Your task to perform on an android device: See recent photos Image 0: 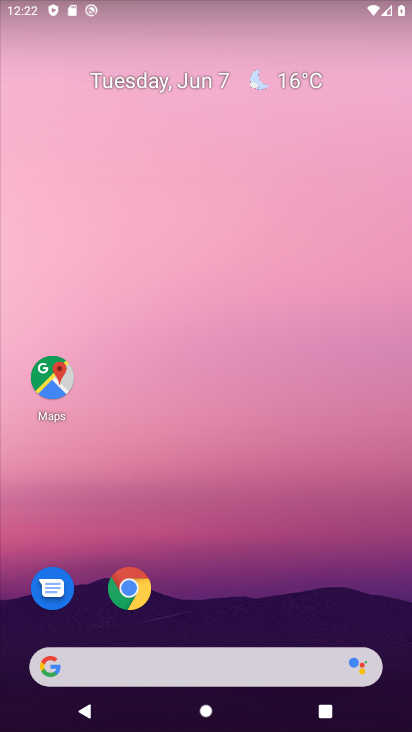
Step 0: drag from (301, 587) to (209, 132)
Your task to perform on an android device: See recent photos Image 1: 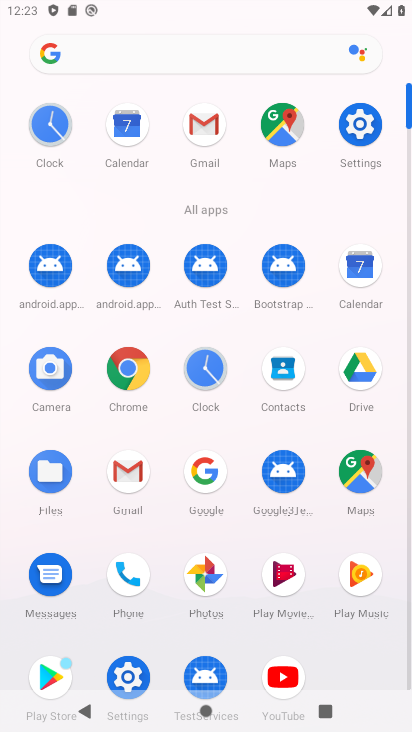
Step 1: click (219, 584)
Your task to perform on an android device: See recent photos Image 2: 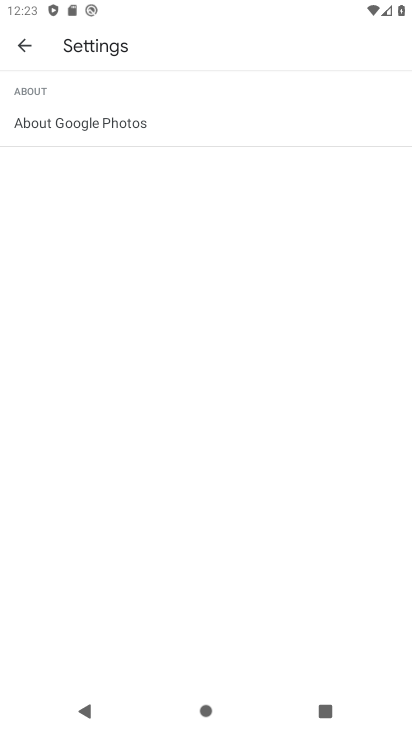
Step 2: task complete